Your task to perform on an android device: set default search engine in the chrome app Image 0: 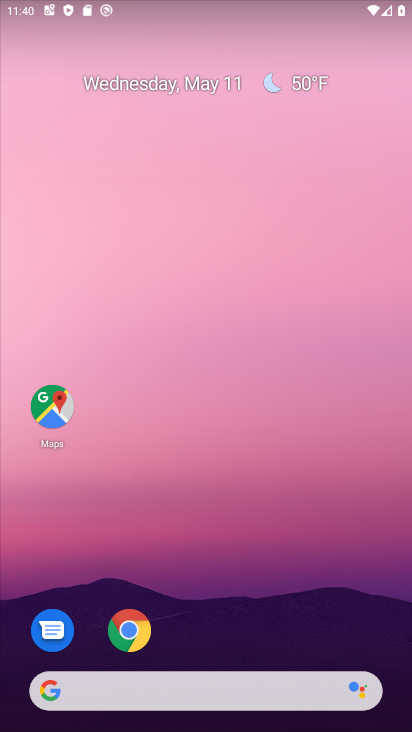
Step 0: click (123, 633)
Your task to perform on an android device: set default search engine in the chrome app Image 1: 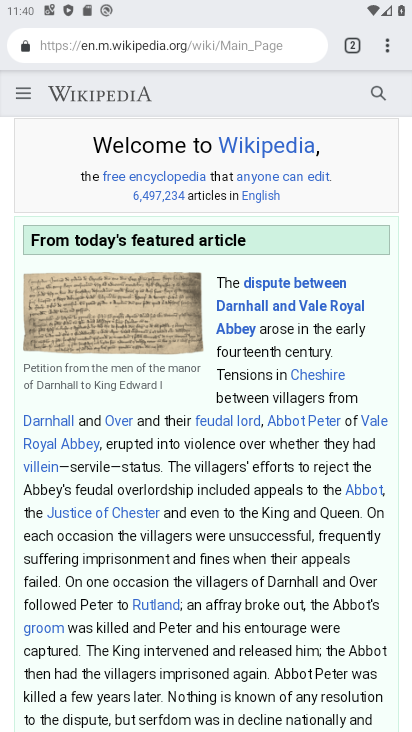
Step 1: click (387, 51)
Your task to perform on an android device: set default search engine in the chrome app Image 2: 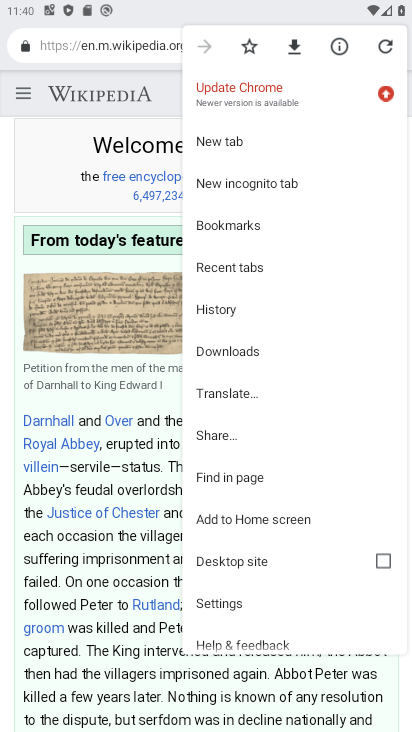
Step 2: click (227, 601)
Your task to perform on an android device: set default search engine in the chrome app Image 3: 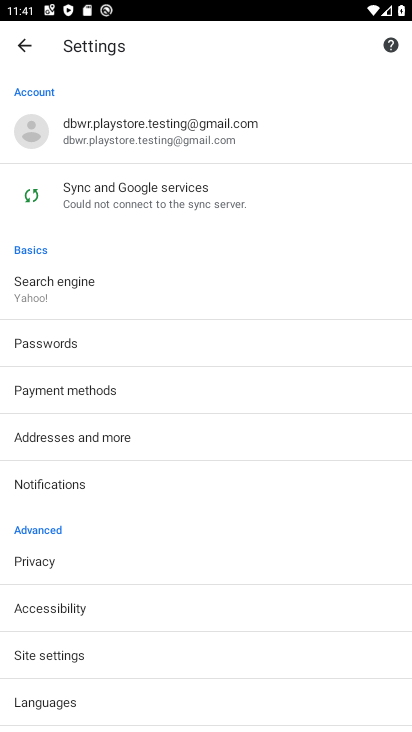
Step 3: click (66, 282)
Your task to perform on an android device: set default search engine in the chrome app Image 4: 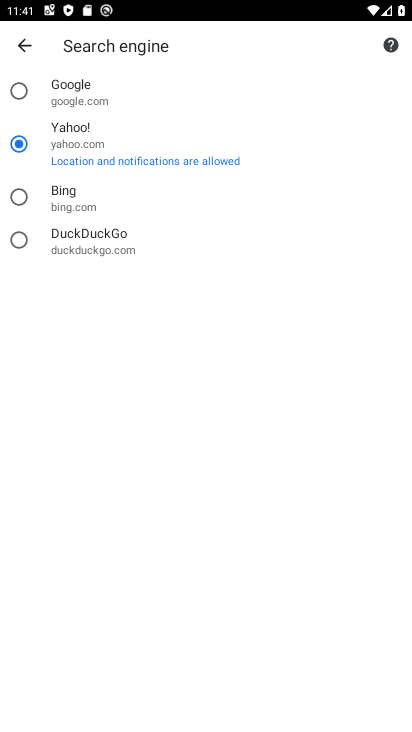
Step 4: click (19, 90)
Your task to perform on an android device: set default search engine in the chrome app Image 5: 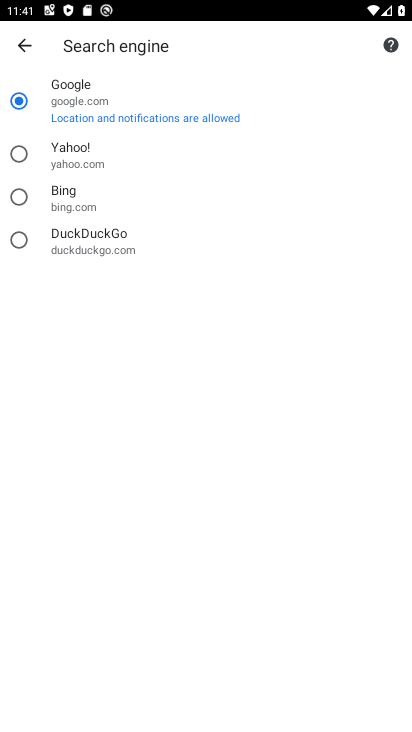
Step 5: task complete